Your task to perform on an android device: Open Wikipedia Image 0: 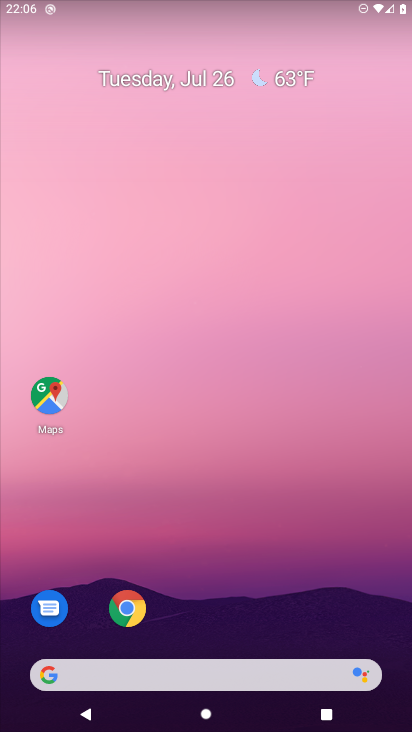
Step 0: click (107, 680)
Your task to perform on an android device: Open Wikipedia Image 1: 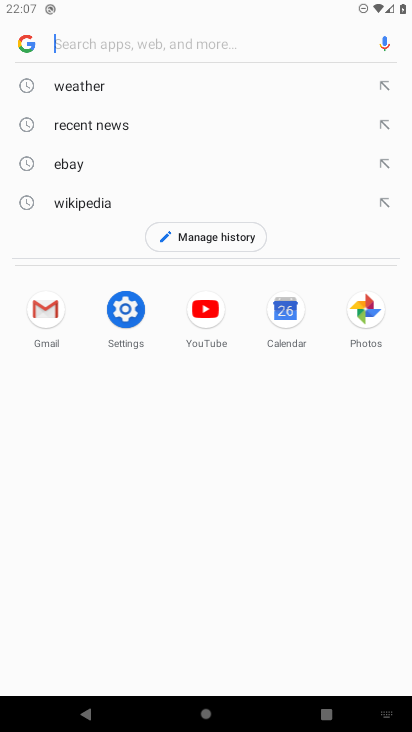
Step 1: click (67, 204)
Your task to perform on an android device: Open Wikipedia Image 2: 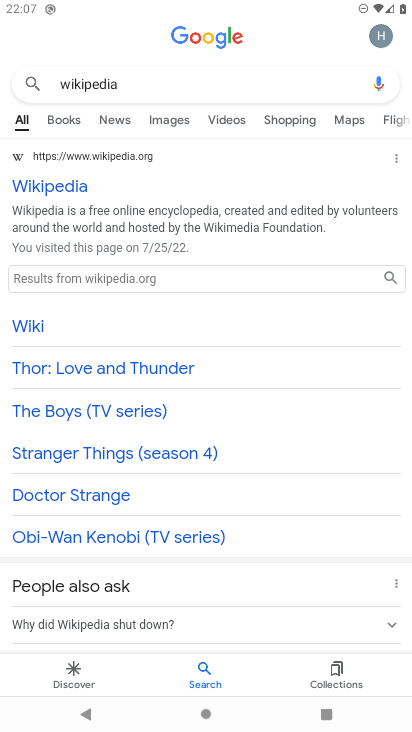
Step 2: task complete